Your task to perform on an android device: Open Google Chrome and open the bookmarks view Image 0: 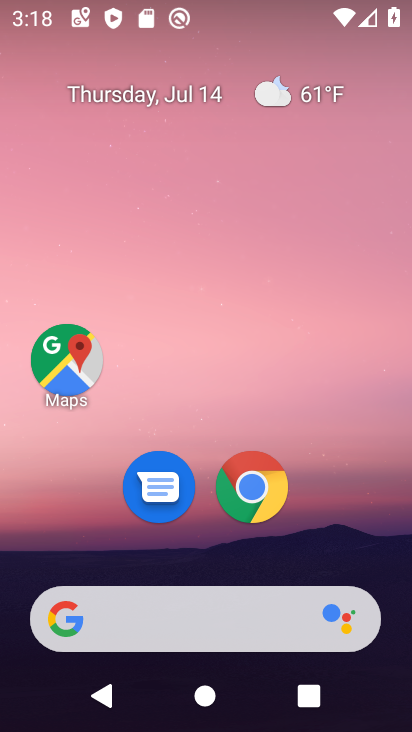
Step 0: click (269, 482)
Your task to perform on an android device: Open Google Chrome and open the bookmarks view Image 1: 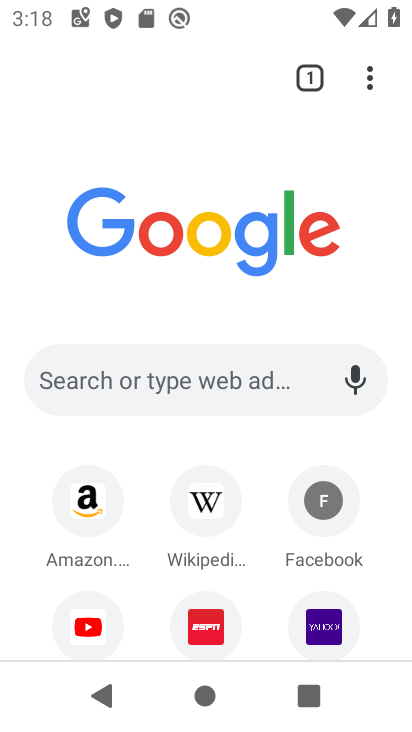
Step 1: task complete